Your task to perform on an android device: toggle show notifications on the lock screen Image 0: 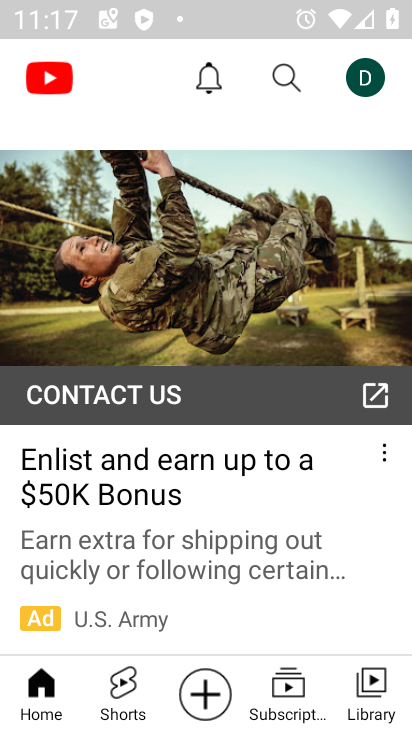
Step 0: press home button
Your task to perform on an android device: toggle show notifications on the lock screen Image 1: 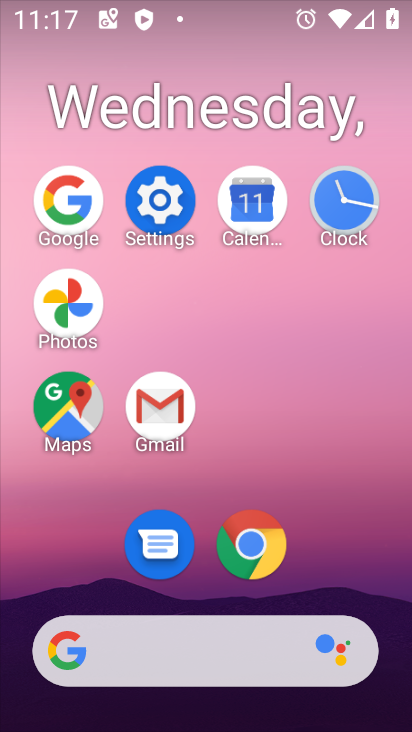
Step 1: click (158, 194)
Your task to perform on an android device: toggle show notifications on the lock screen Image 2: 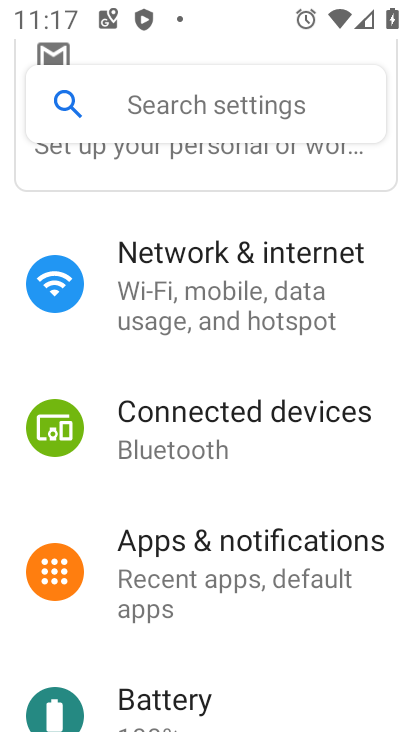
Step 2: click (285, 540)
Your task to perform on an android device: toggle show notifications on the lock screen Image 3: 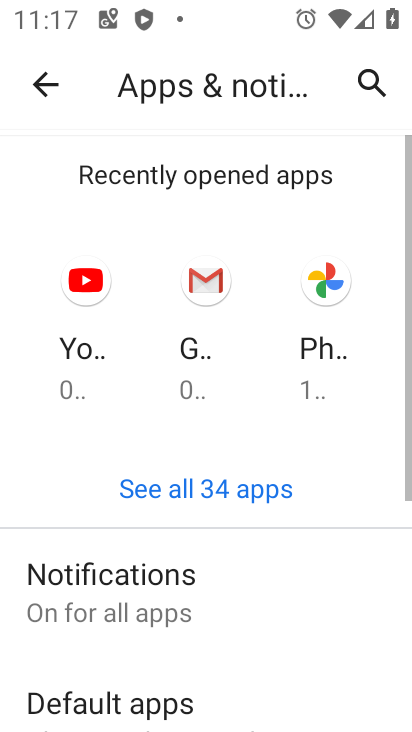
Step 3: drag from (252, 631) to (258, 207)
Your task to perform on an android device: toggle show notifications on the lock screen Image 4: 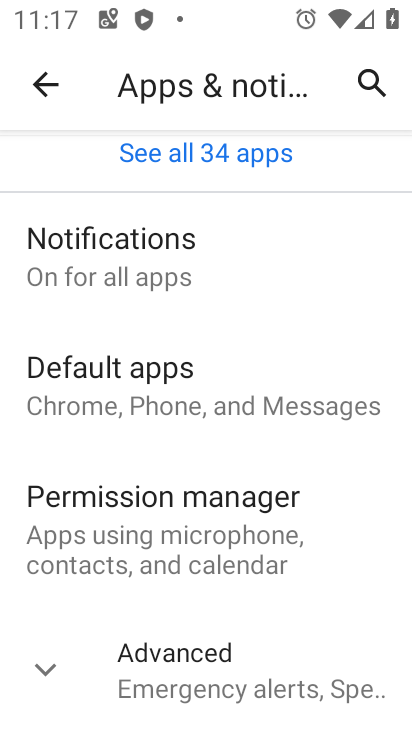
Step 4: click (143, 261)
Your task to perform on an android device: toggle show notifications on the lock screen Image 5: 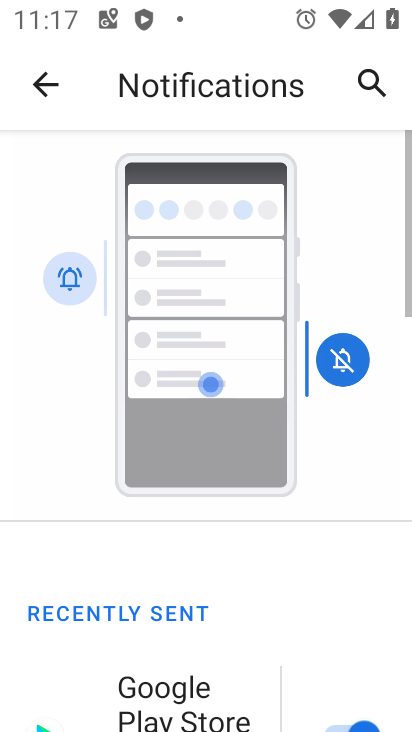
Step 5: drag from (217, 626) to (258, 173)
Your task to perform on an android device: toggle show notifications on the lock screen Image 6: 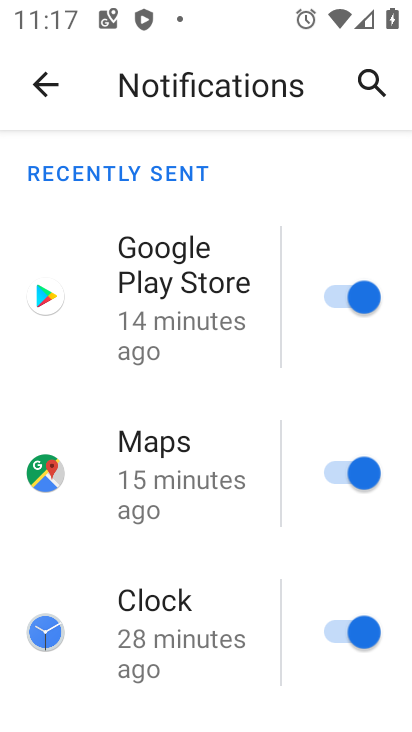
Step 6: drag from (256, 615) to (291, 215)
Your task to perform on an android device: toggle show notifications on the lock screen Image 7: 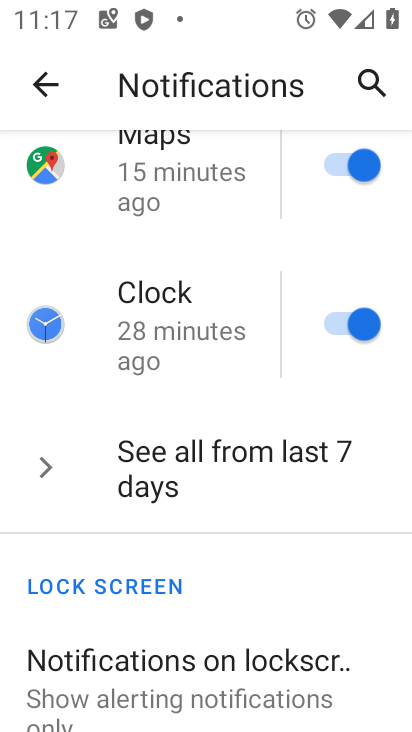
Step 7: click (244, 670)
Your task to perform on an android device: toggle show notifications on the lock screen Image 8: 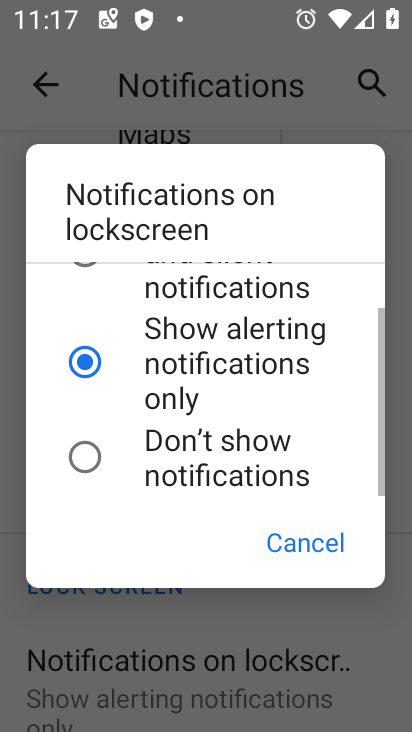
Step 8: drag from (155, 304) to (193, 544)
Your task to perform on an android device: toggle show notifications on the lock screen Image 9: 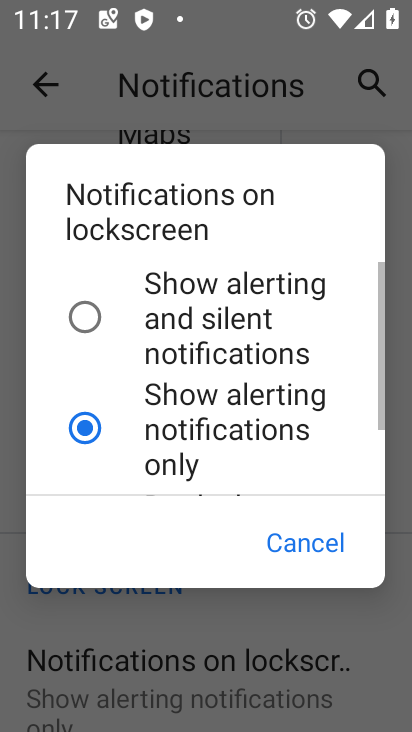
Step 9: click (121, 319)
Your task to perform on an android device: toggle show notifications on the lock screen Image 10: 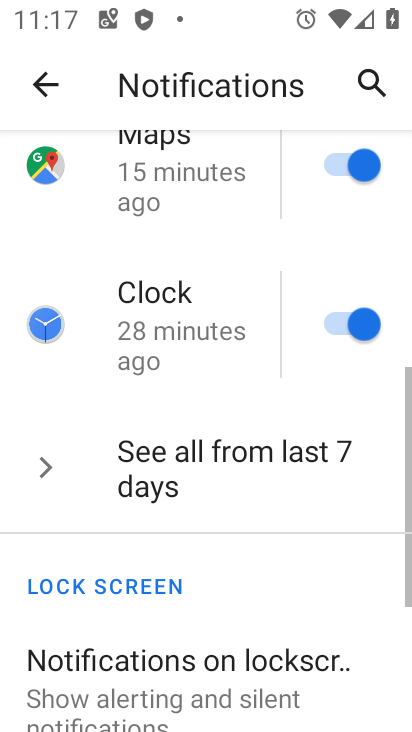
Step 10: task complete